Your task to perform on an android device: Open Google Chrome Image 0: 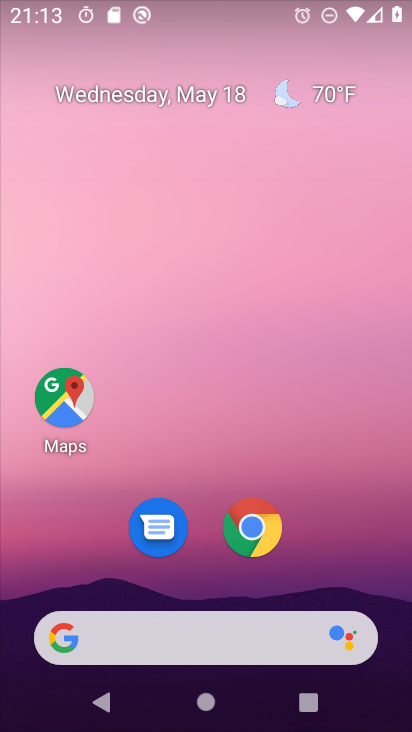
Step 0: click (249, 530)
Your task to perform on an android device: Open Google Chrome Image 1: 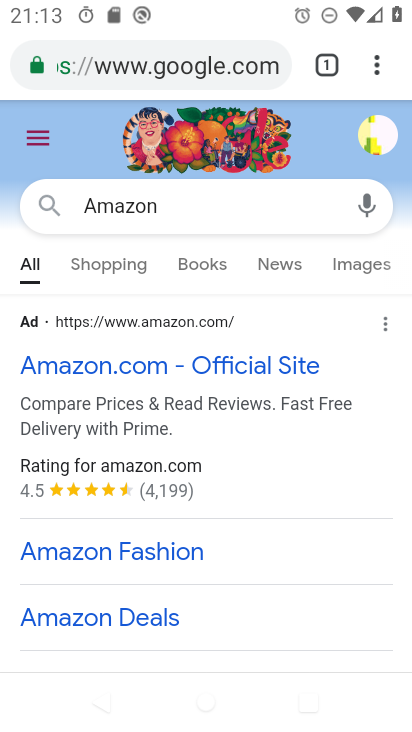
Step 1: click (379, 65)
Your task to perform on an android device: Open Google Chrome Image 2: 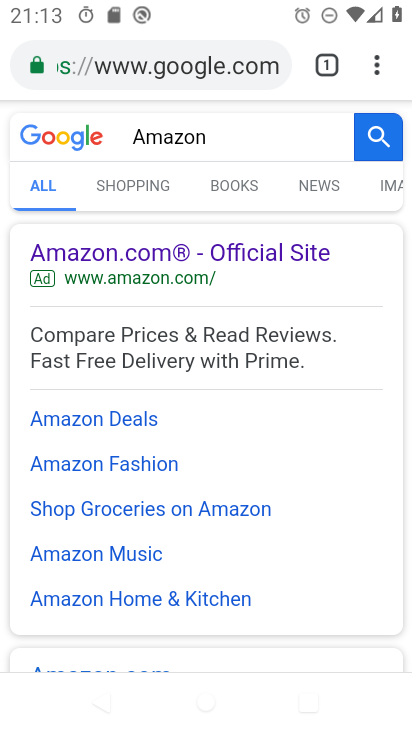
Step 2: task complete